Your task to perform on an android device: Open Google Chrome Image 0: 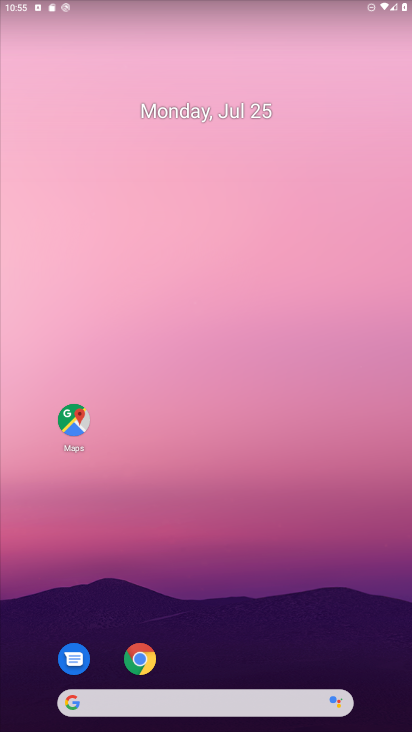
Step 0: click (142, 669)
Your task to perform on an android device: Open Google Chrome Image 1: 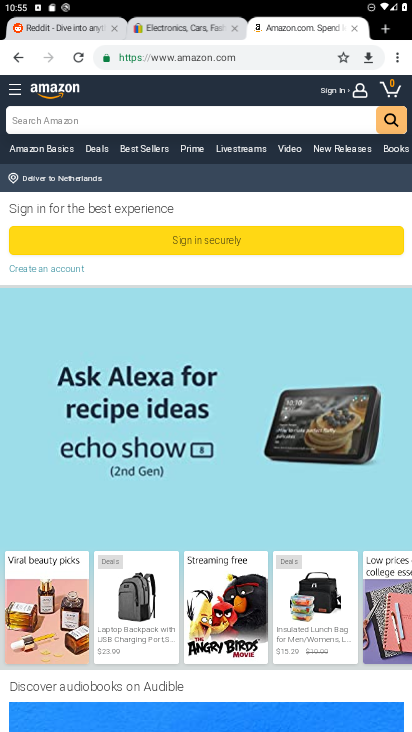
Step 1: task complete